Your task to perform on an android device: Open Chrome and go to settings Image 0: 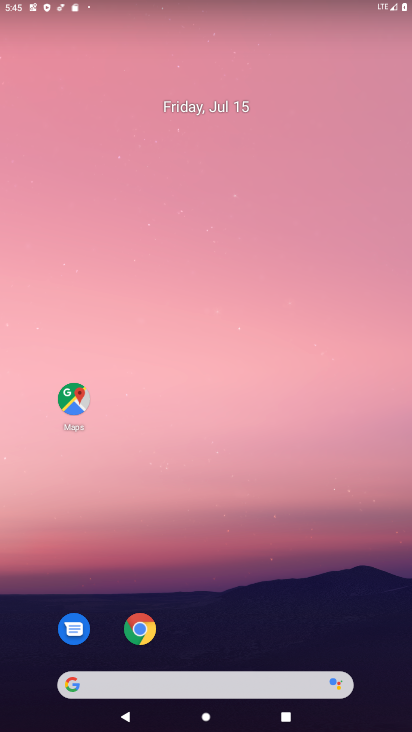
Step 0: press home button
Your task to perform on an android device: Open Chrome and go to settings Image 1: 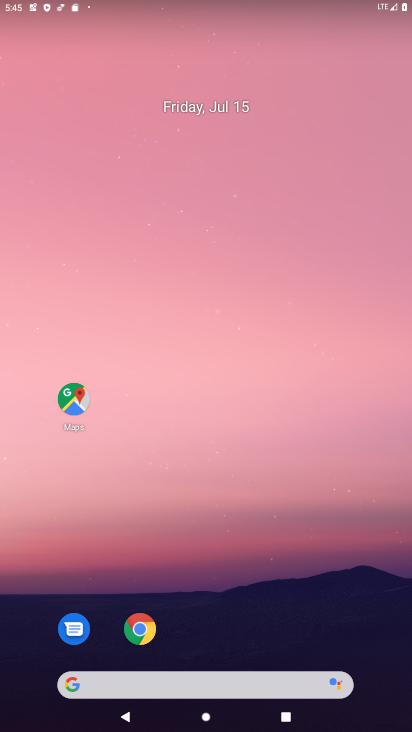
Step 1: drag from (208, 643) to (347, 3)
Your task to perform on an android device: Open Chrome and go to settings Image 2: 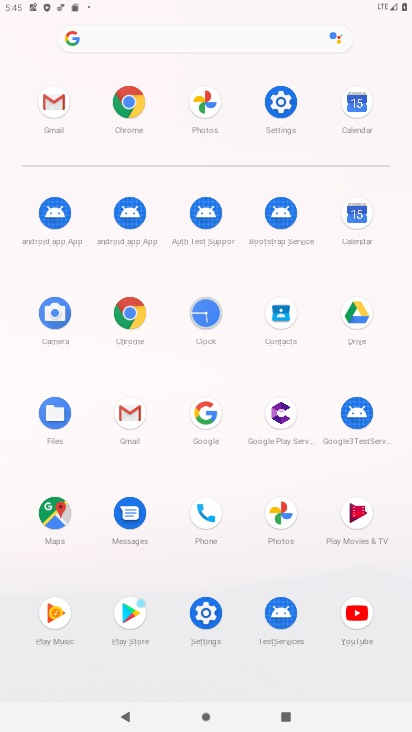
Step 2: click (134, 107)
Your task to perform on an android device: Open Chrome and go to settings Image 3: 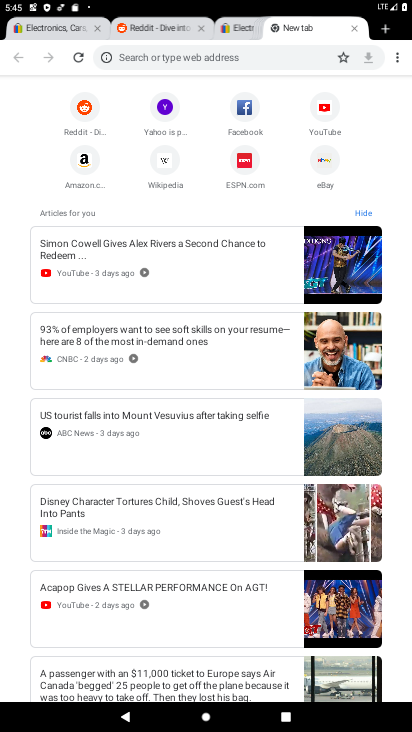
Step 3: task complete